Your task to perform on an android device: open app "Booking.com: Hotels and more" (install if not already installed) Image 0: 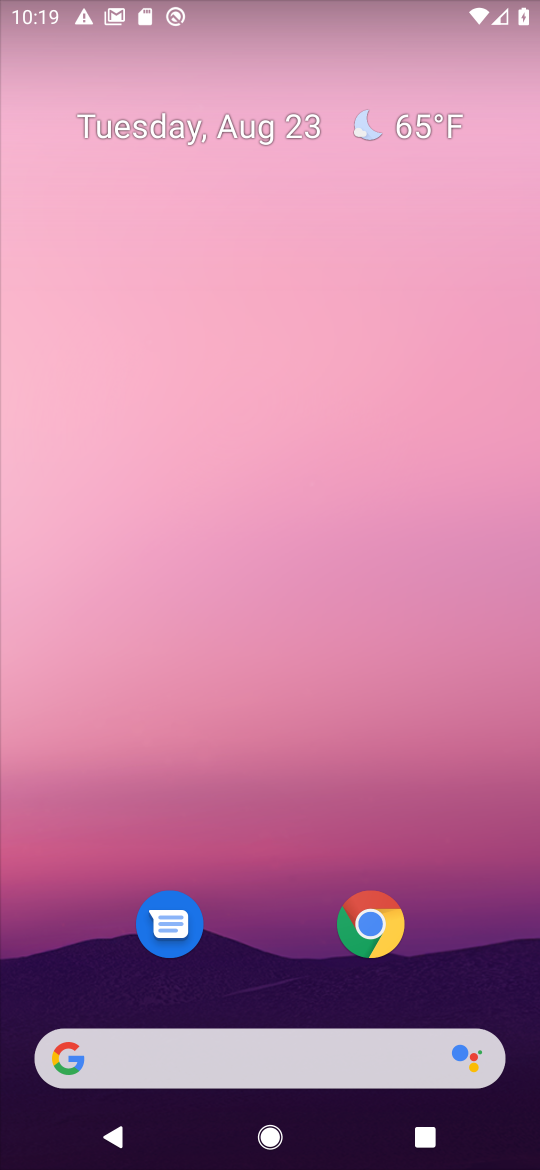
Step 0: drag from (290, 1050) to (143, 8)
Your task to perform on an android device: open app "Booking.com: Hotels and more" (install if not already installed) Image 1: 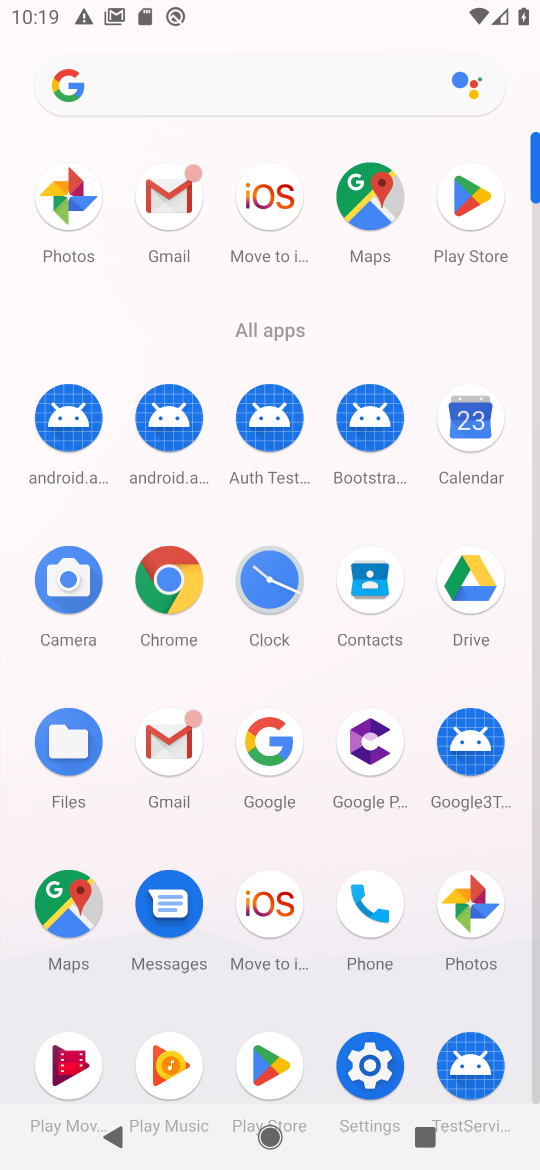
Step 1: click (460, 199)
Your task to perform on an android device: open app "Booking.com: Hotels and more" (install if not already installed) Image 2: 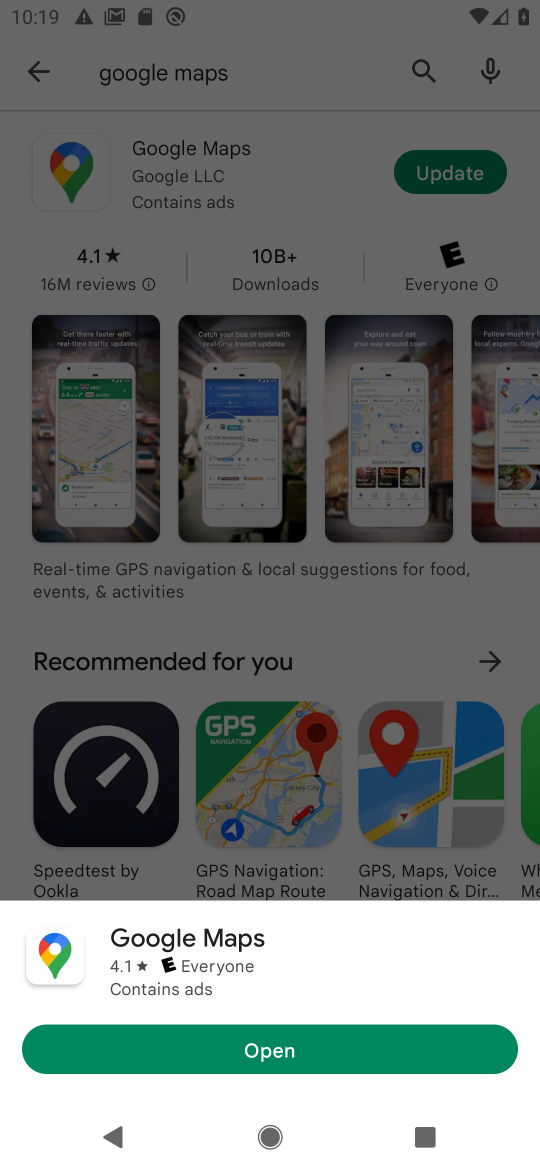
Step 2: click (424, 80)
Your task to perform on an android device: open app "Booking.com: Hotels and more" (install if not already installed) Image 3: 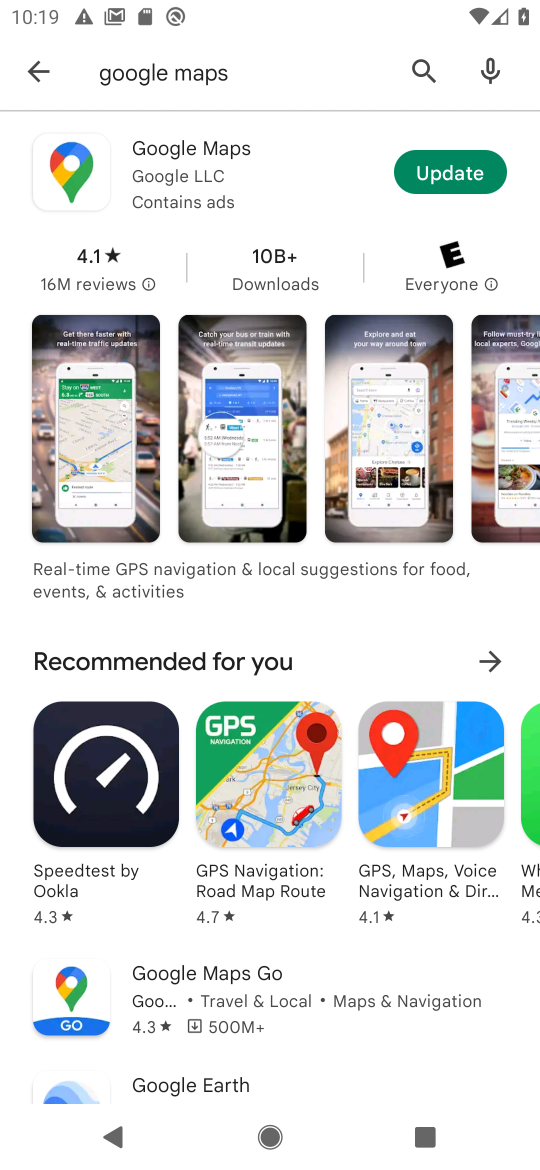
Step 3: click (424, 80)
Your task to perform on an android device: open app "Booking.com: Hotels and more" (install if not already installed) Image 4: 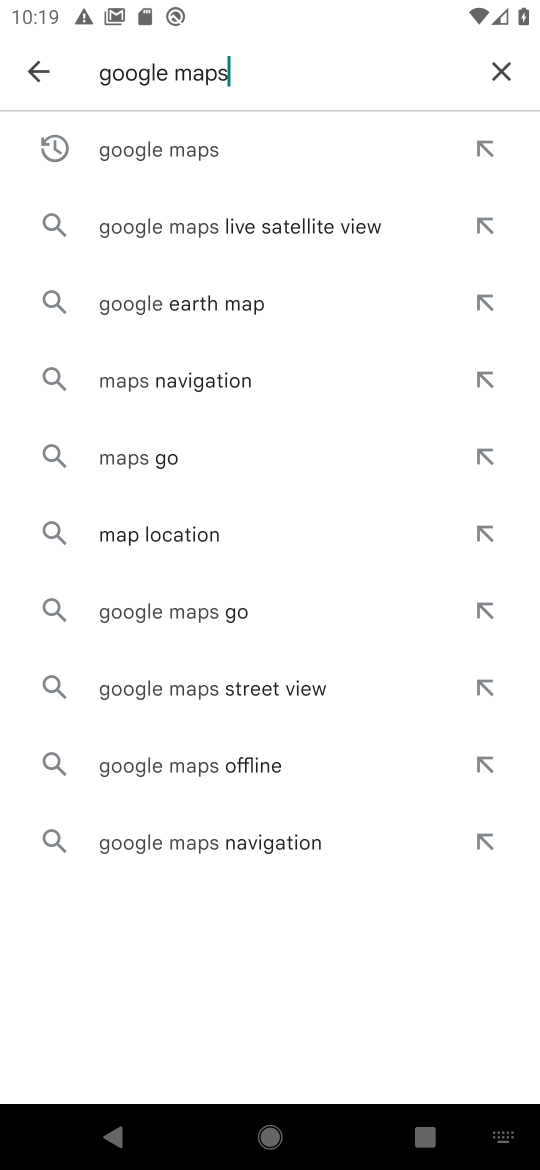
Step 4: click (499, 76)
Your task to perform on an android device: open app "Booking.com: Hotels and more" (install if not already installed) Image 5: 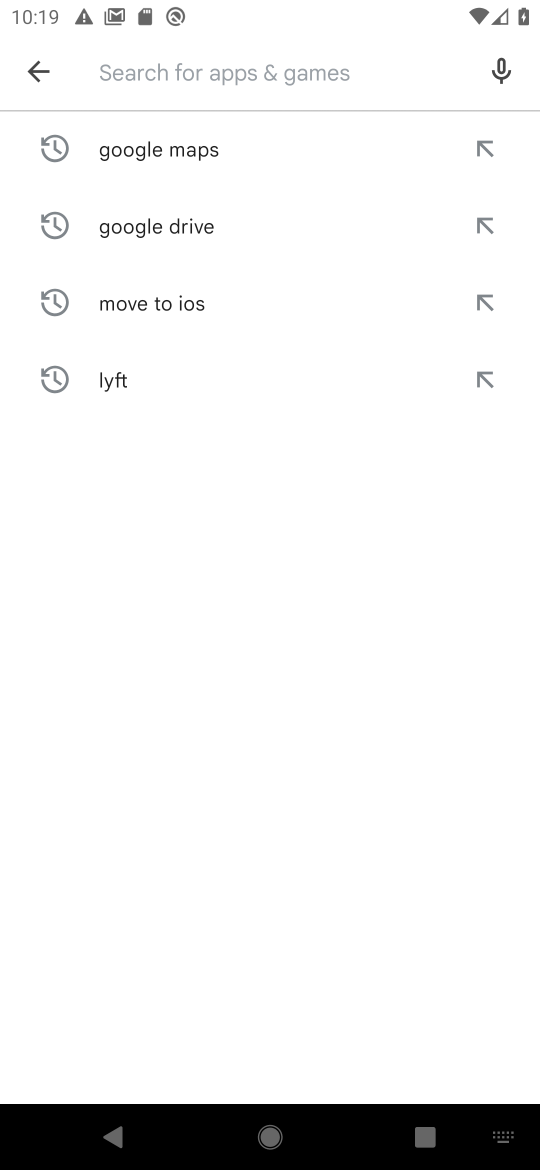
Step 5: type "booking.com"
Your task to perform on an android device: open app "Booking.com: Hotels and more" (install if not already installed) Image 6: 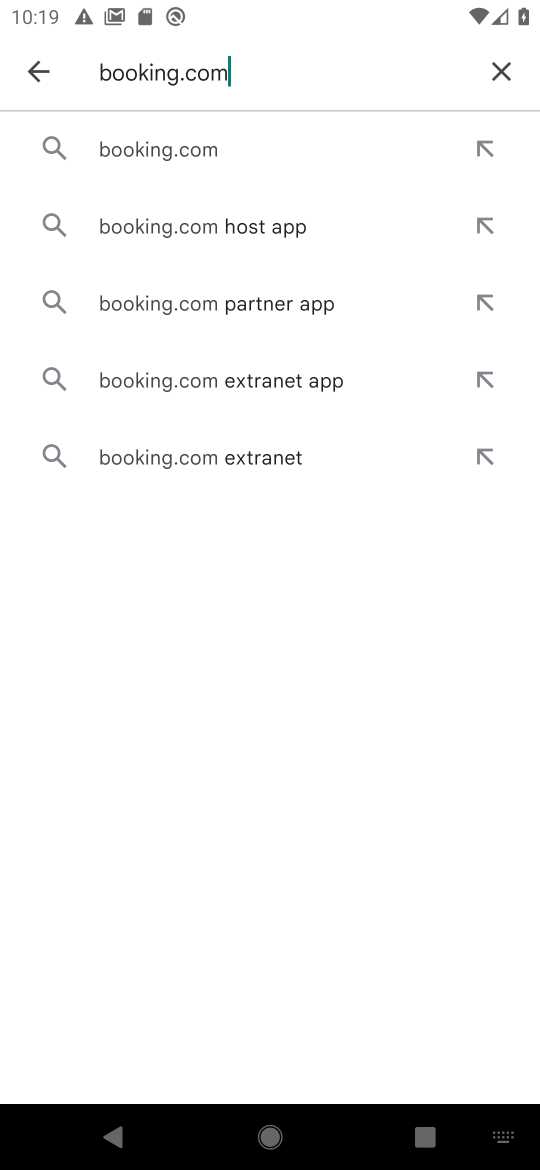
Step 6: click (230, 161)
Your task to perform on an android device: open app "Booking.com: Hotels and more" (install if not already installed) Image 7: 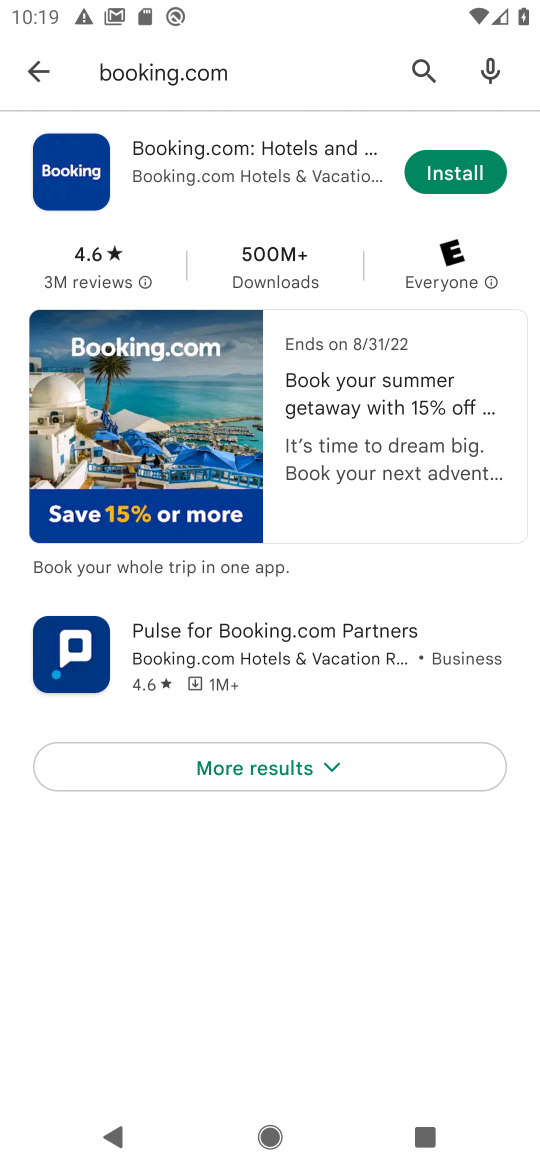
Step 7: click (427, 185)
Your task to perform on an android device: open app "Booking.com: Hotels and more" (install if not already installed) Image 8: 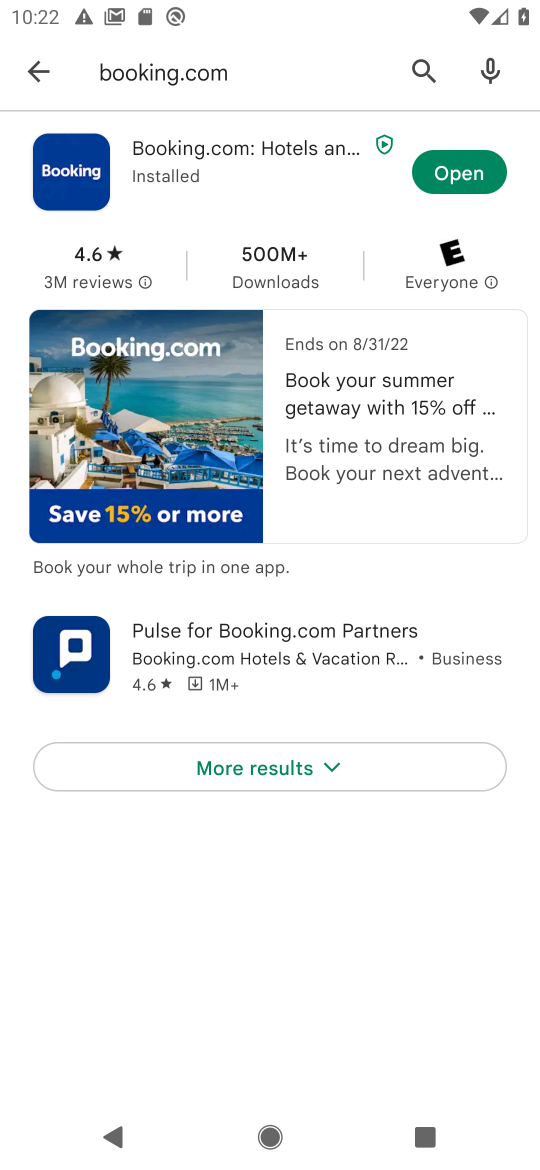
Step 8: click (427, 185)
Your task to perform on an android device: open app "Booking.com: Hotels and more" (install if not already installed) Image 9: 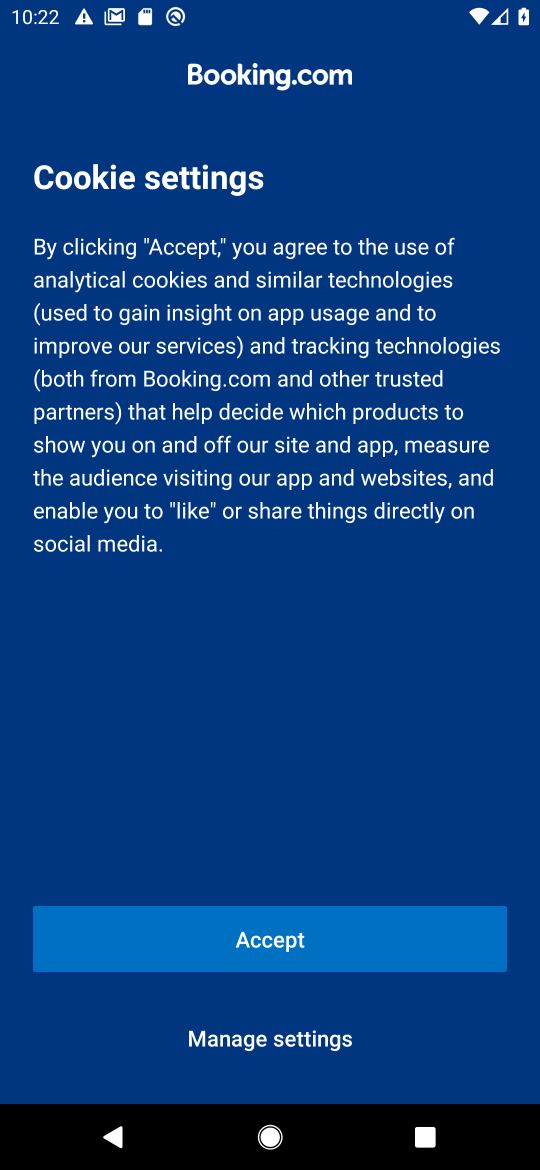
Step 9: task complete